Your task to perform on an android device: Open wifi settings Image 0: 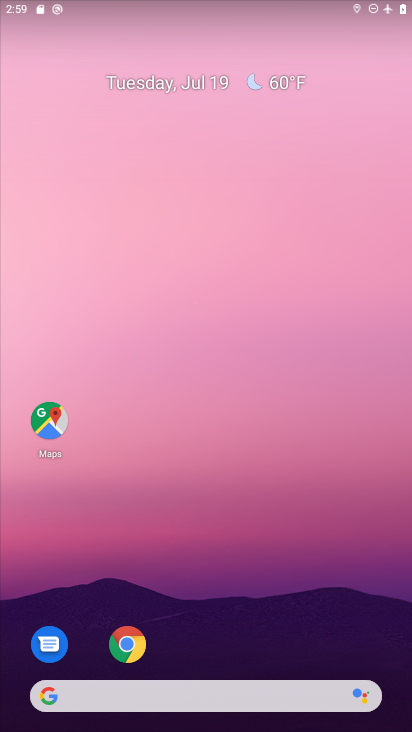
Step 0: drag from (202, 643) to (188, 7)
Your task to perform on an android device: Open wifi settings Image 1: 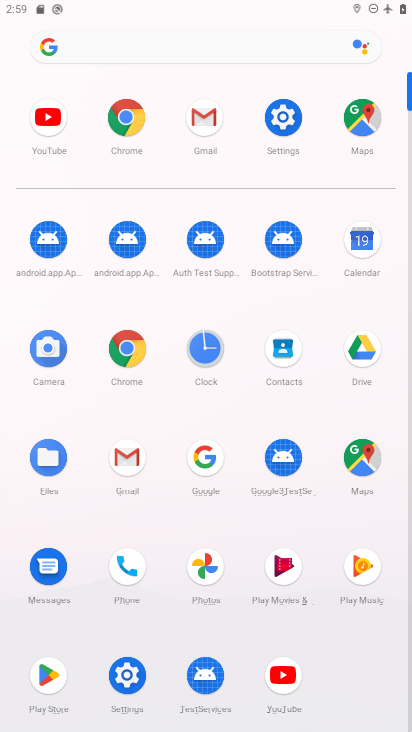
Step 1: click (98, 705)
Your task to perform on an android device: Open wifi settings Image 2: 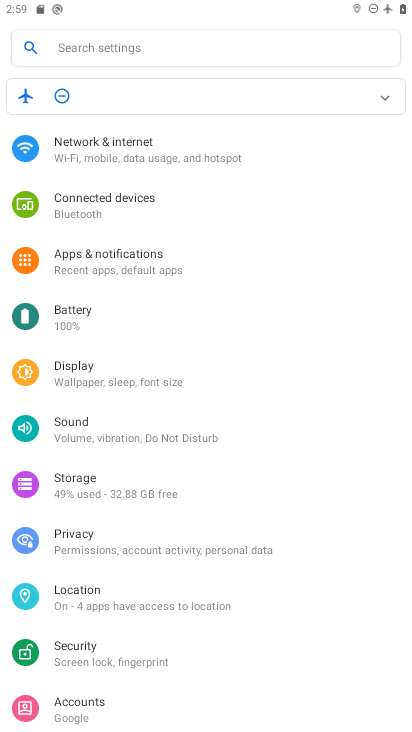
Step 2: click (46, 144)
Your task to perform on an android device: Open wifi settings Image 3: 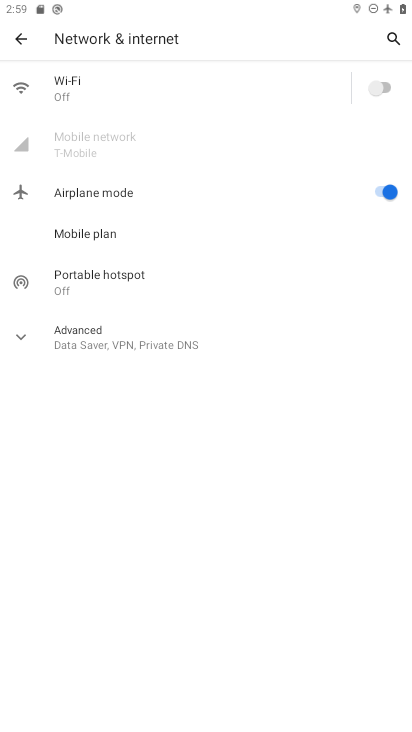
Step 3: click (36, 93)
Your task to perform on an android device: Open wifi settings Image 4: 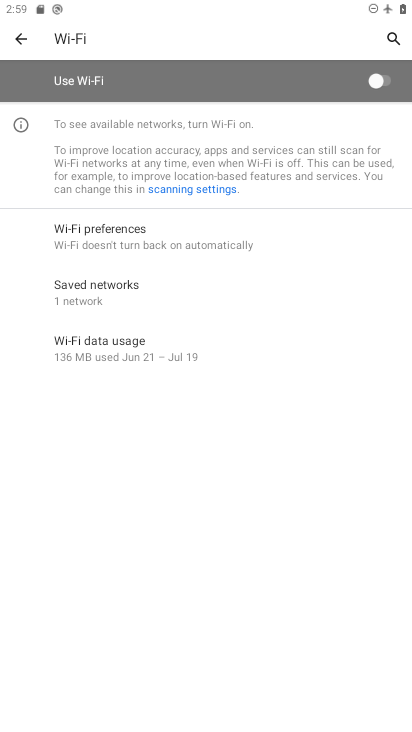
Step 4: task complete